Your task to perform on an android device: Open wifi settings Image 0: 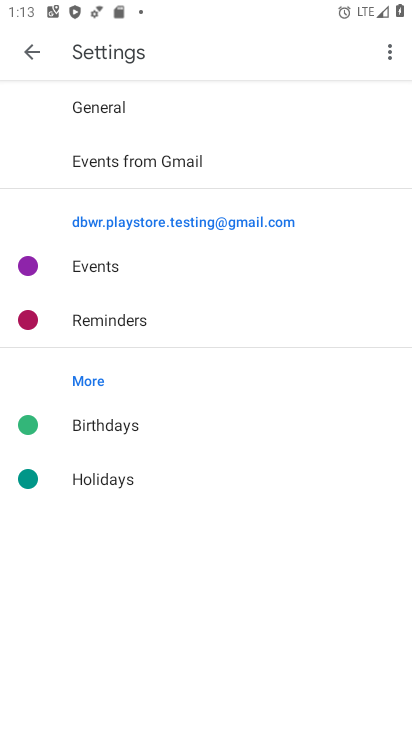
Step 0: press back button
Your task to perform on an android device: Open wifi settings Image 1: 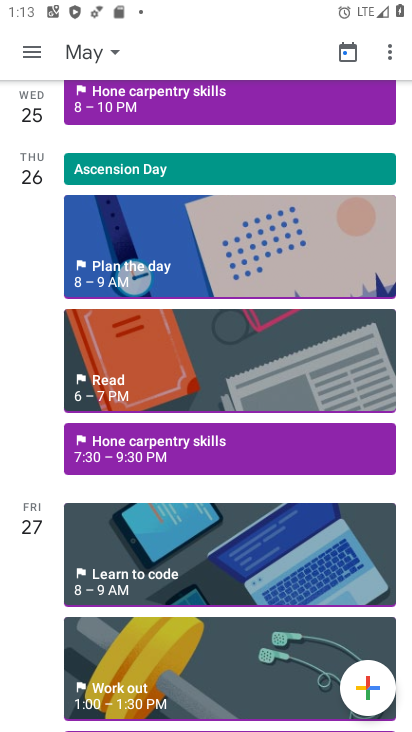
Step 1: press back button
Your task to perform on an android device: Open wifi settings Image 2: 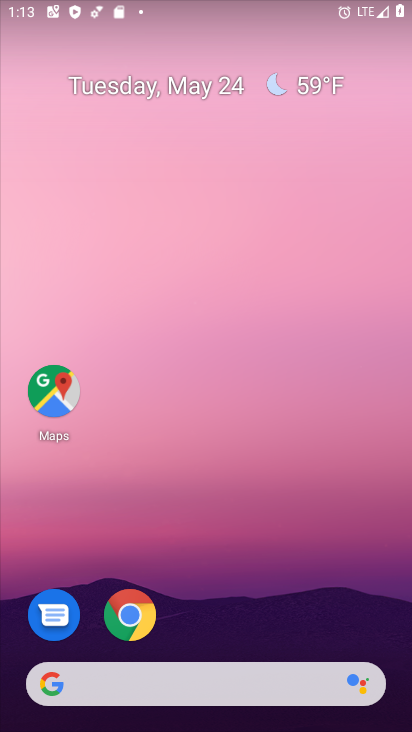
Step 2: drag from (315, 547) to (313, 60)
Your task to perform on an android device: Open wifi settings Image 3: 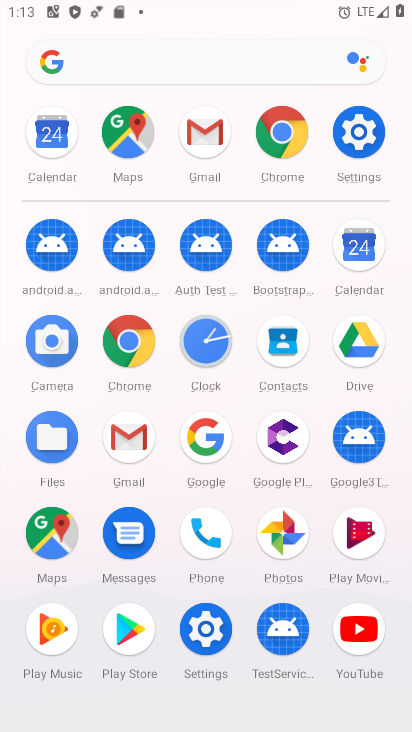
Step 3: drag from (8, 489) to (18, 146)
Your task to perform on an android device: Open wifi settings Image 4: 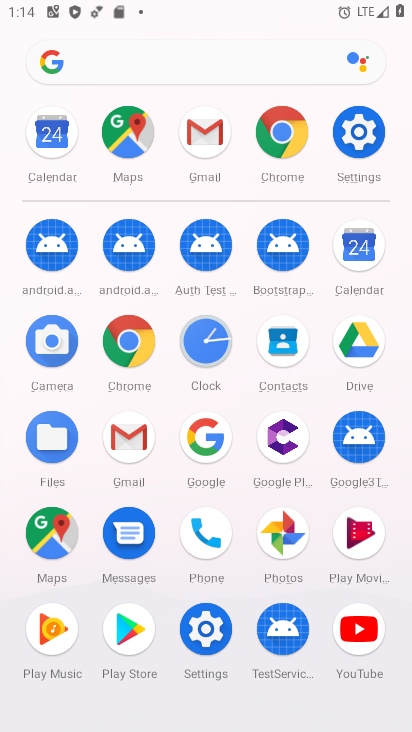
Step 4: click (205, 629)
Your task to perform on an android device: Open wifi settings Image 5: 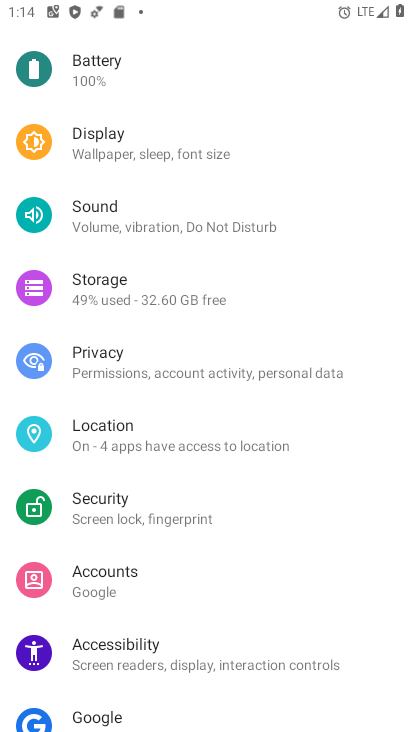
Step 5: drag from (223, 149) to (236, 655)
Your task to perform on an android device: Open wifi settings Image 6: 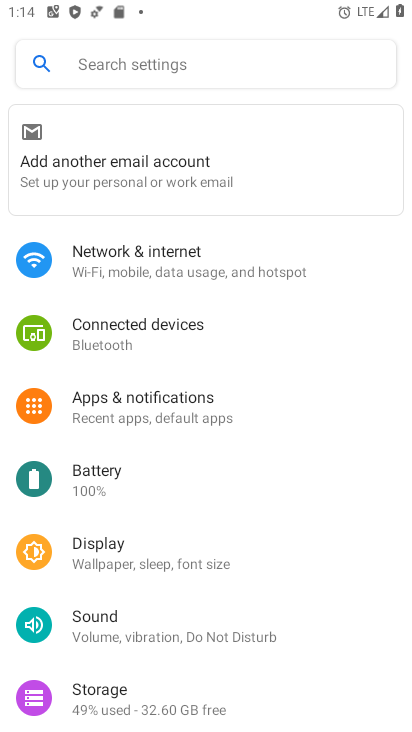
Step 6: click (182, 254)
Your task to perform on an android device: Open wifi settings Image 7: 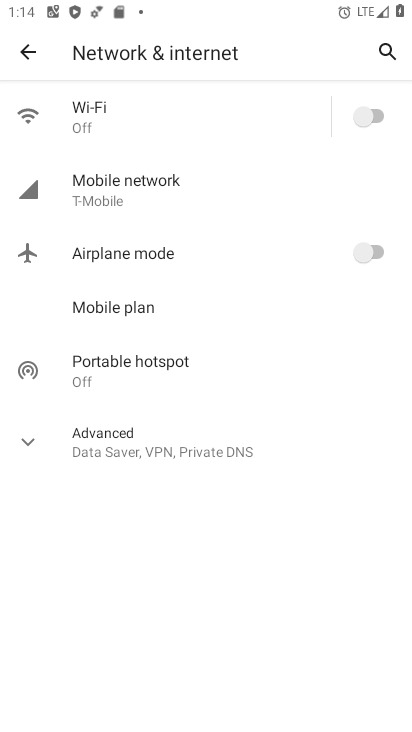
Step 7: click (119, 112)
Your task to perform on an android device: Open wifi settings Image 8: 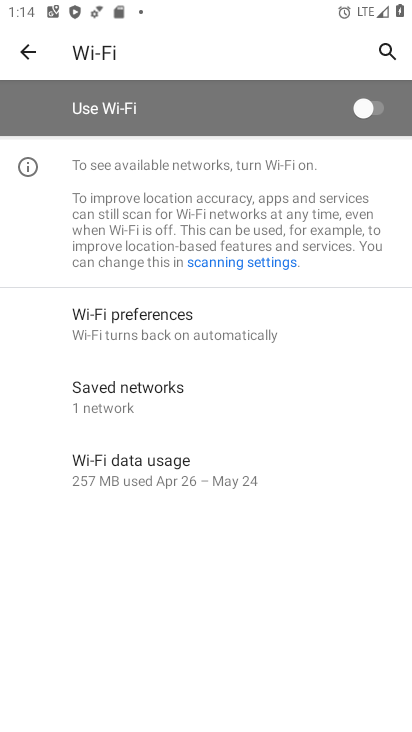
Step 8: task complete